Your task to perform on an android device: turn off priority inbox in the gmail app Image 0: 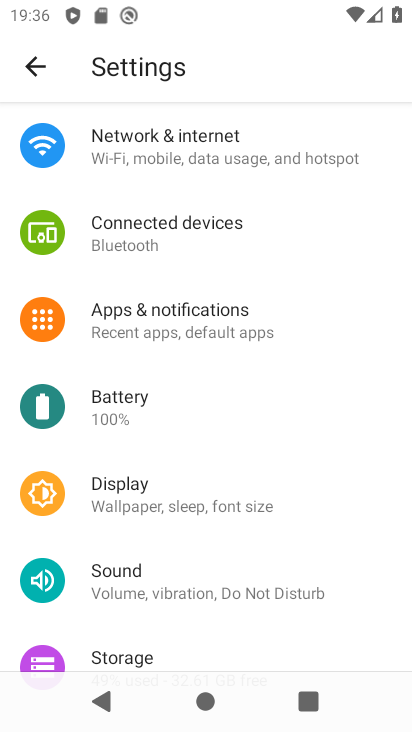
Step 0: press home button
Your task to perform on an android device: turn off priority inbox in the gmail app Image 1: 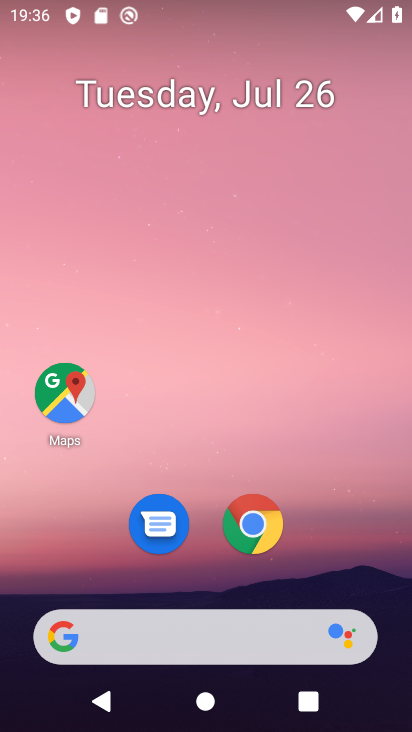
Step 1: drag from (219, 632) to (335, 227)
Your task to perform on an android device: turn off priority inbox in the gmail app Image 2: 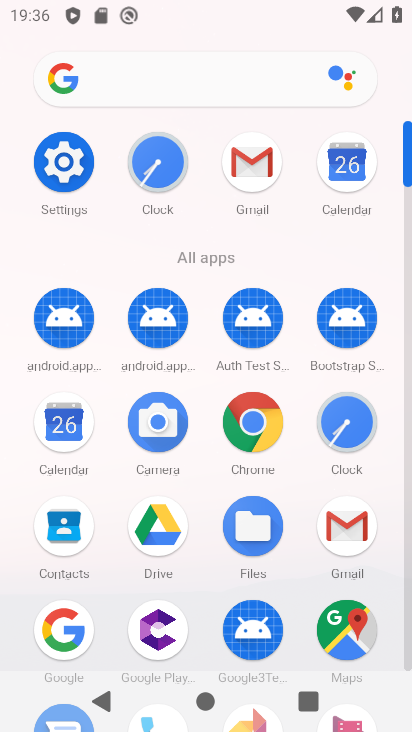
Step 2: click (345, 527)
Your task to perform on an android device: turn off priority inbox in the gmail app Image 3: 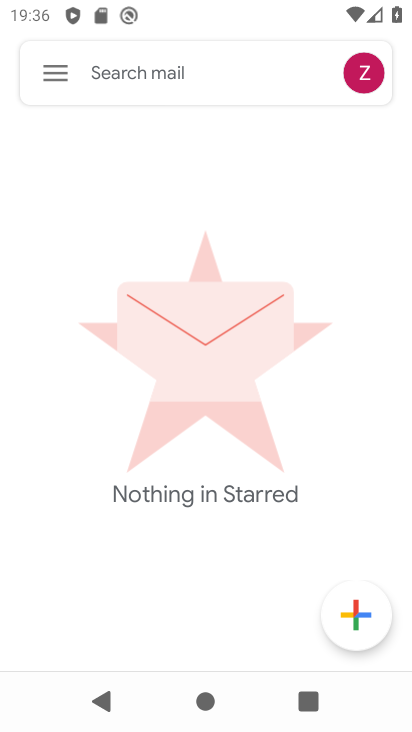
Step 3: click (63, 69)
Your task to perform on an android device: turn off priority inbox in the gmail app Image 4: 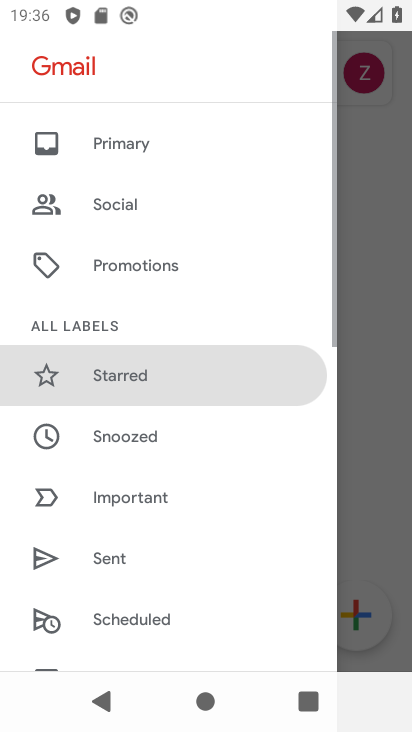
Step 4: drag from (207, 582) to (316, 149)
Your task to perform on an android device: turn off priority inbox in the gmail app Image 5: 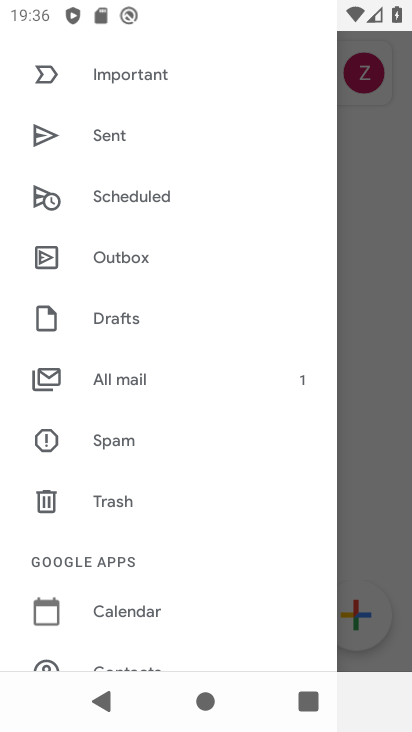
Step 5: drag from (184, 593) to (326, 117)
Your task to perform on an android device: turn off priority inbox in the gmail app Image 6: 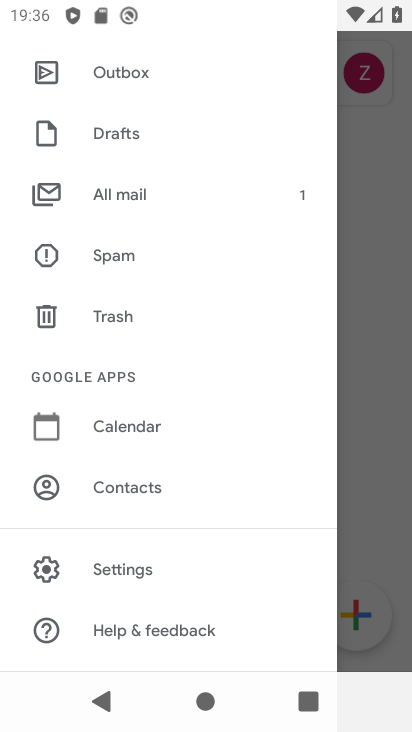
Step 6: click (130, 576)
Your task to perform on an android device: turn off priority inbox in the gmail app Image 7: 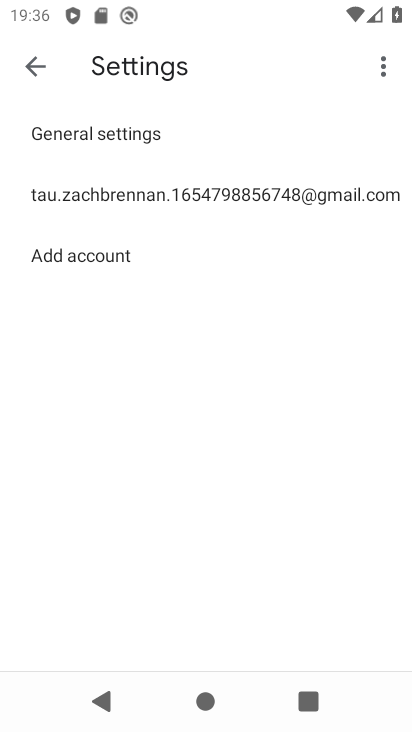
Step 7: click (203, 192)
Your task to perform on an android device: turn off priority inbox in the gmail app Image 8: 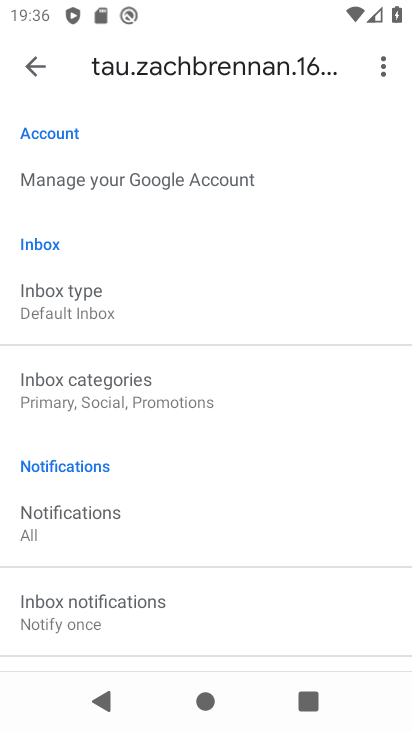
Step 8: click (63, 305)
Your task to perform on an android device: turn off priority inbox in the gmail app Image 9: 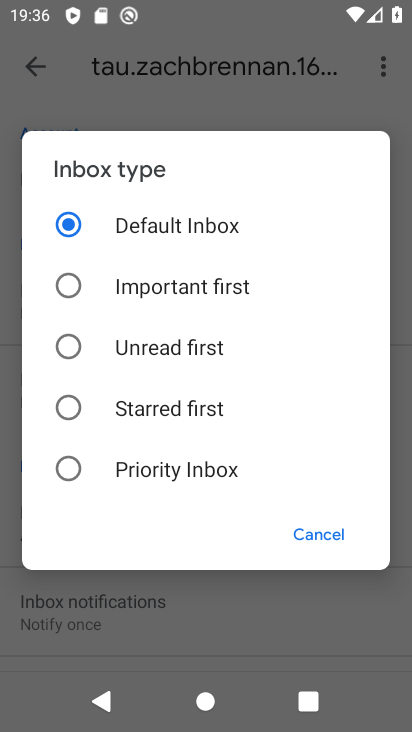
Step 9: task complete